Your task to perform on an android device: find photos in the google photos app Image 0: 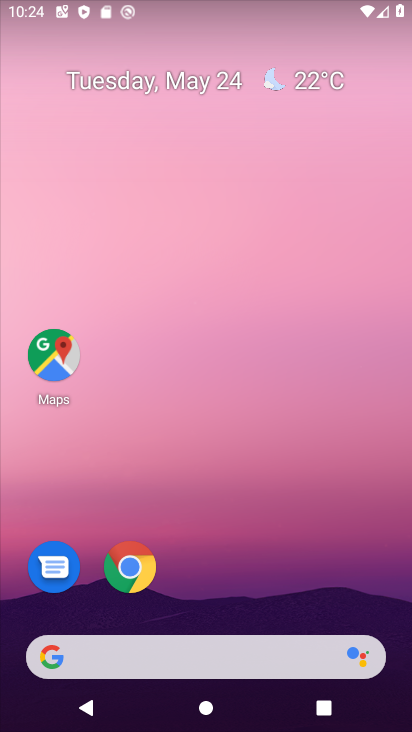
Step 0: drag from (273, 13) to (221, 639)
Your task to perform on an android device: find photos in the google photos app Image 1: 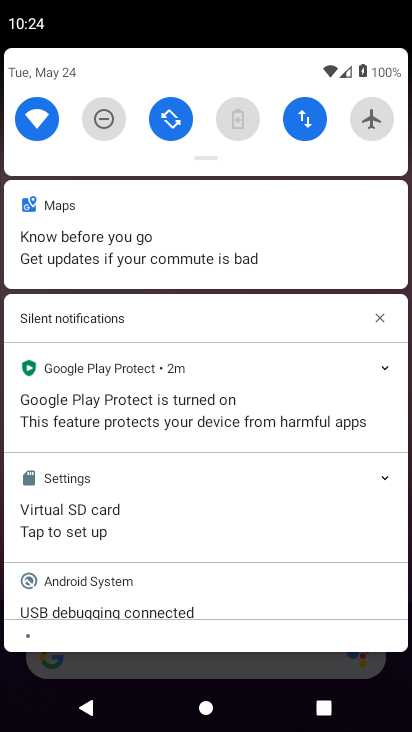
Step 1: press home button
Your task to perform on an android device: find photos in the google photos app Image 2: 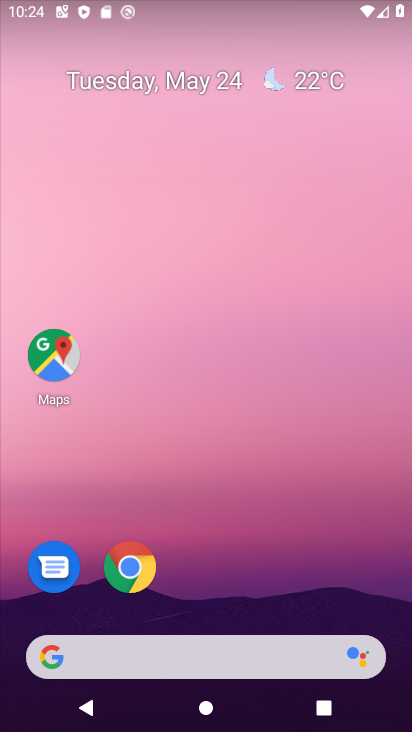
Step 2: drag from (214, 607) to (305, 16)
Your task to perform on an android device: find photos in the google photos app Image 3: 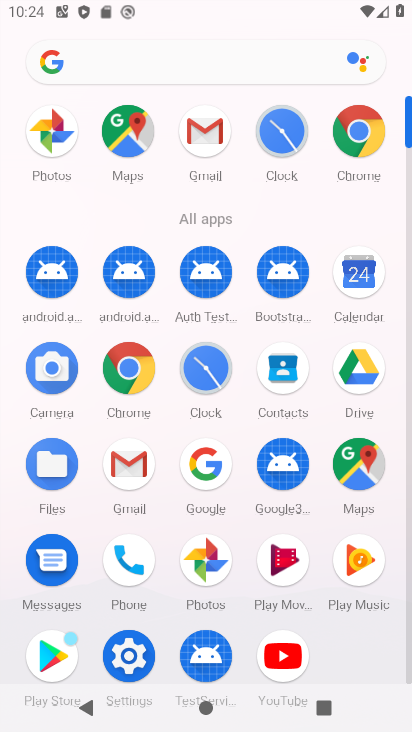
Step 3: click (35, 146)
Your task to perform on an android device: find photos in the google photos app Image 4: 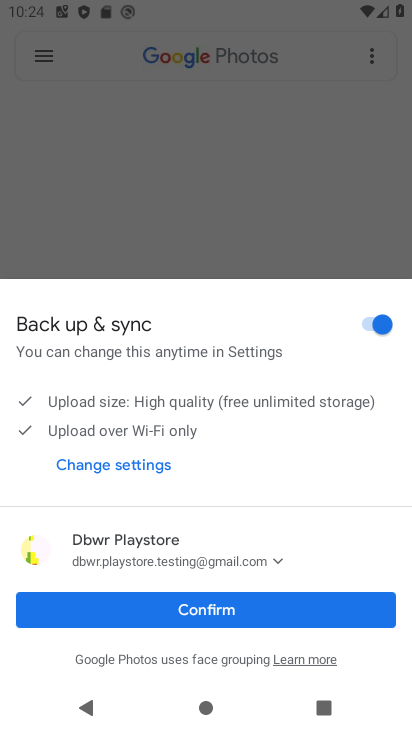
Step 4: click (197, 605)
Your task to perform on an android device: find photos in the google photos app Image 5: 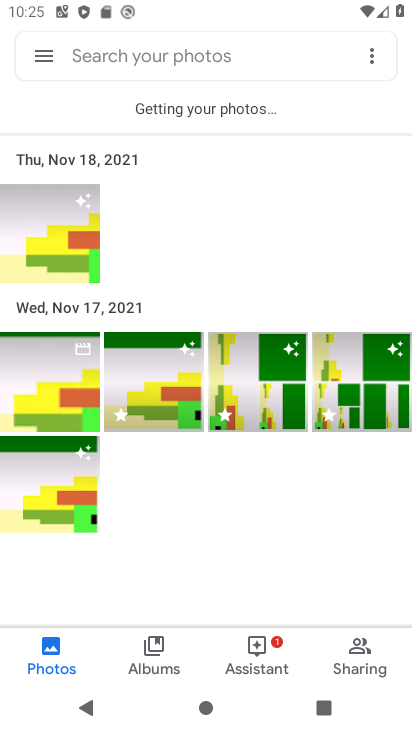
Step 5: task complete